Your task to perform on an android device: open app "Facebook Lite" (install if not already installed) Image 0: 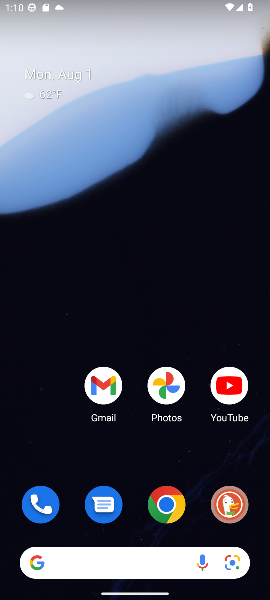
Step 0: drag from (142, 556) to (151, 111)
Your task to perform on an android device: open app "Facebook Lite" (install if not already installed) Image 1: 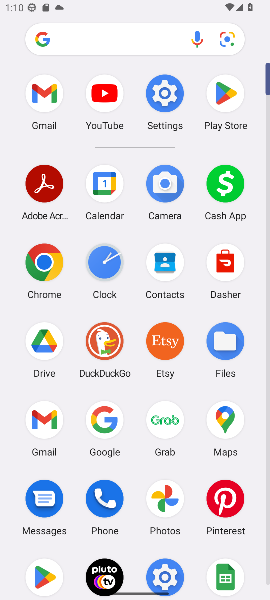
Step 1: drag from (193, 481) to (182, 215)
Your task to perform on an android device: open app "Facebook Lite" (install if not already installed) Image 2: 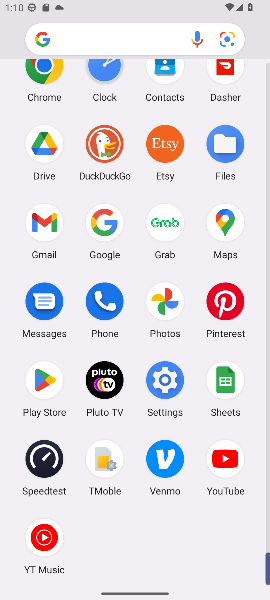
Step 2: click (32, 394)
Your task to perform on an android device: open app "Facebook Lite" (install if not already installed) Image 3: 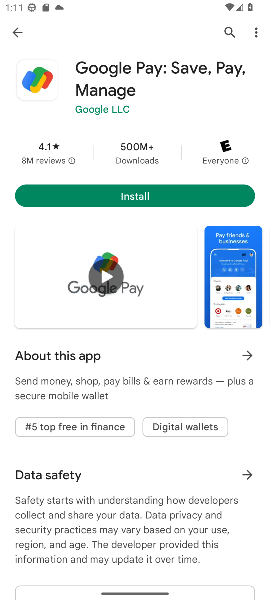
Step 3: click (232, 30)
Your task to perform on an android device: open app "Facebook Lite" (install if not already installed) Image 4: 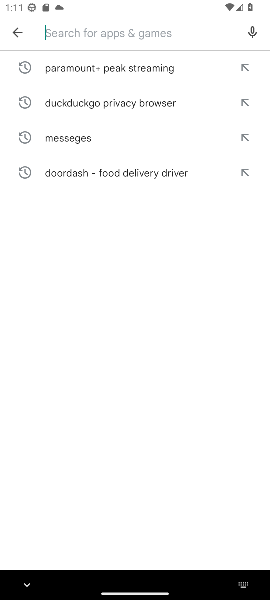
Step 4: type "facebook lite"
Your task to perform on an android device: open app "Facebook Lite" (install if not already installed) Image 5: 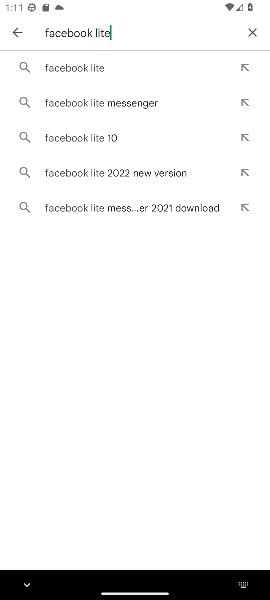
Step 5: click (147, 69)
Your task to perform on an android device: open app "Facebook Lite" (install if not already installed) Image 6: 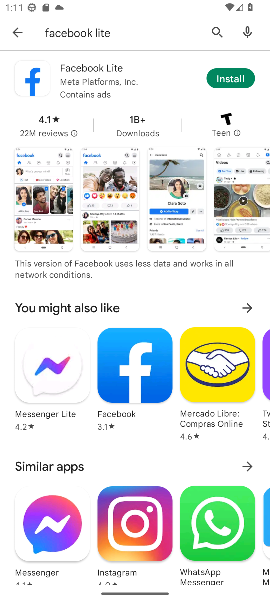
Step 6: click (244, 80)
Your task to perform on an android device: open app "Facebook Lite" (install if not already installed) Image 7: 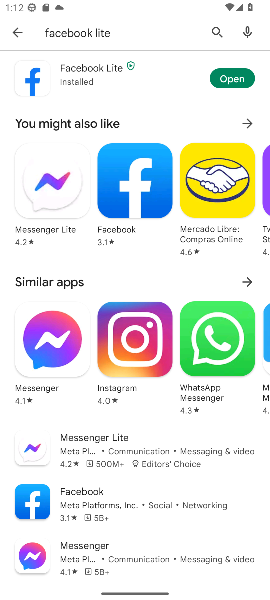
Step 7: click (237, 76)
Your task to perform on an android device: open app "Facebook Lite" (install if not already installed) Image 8: 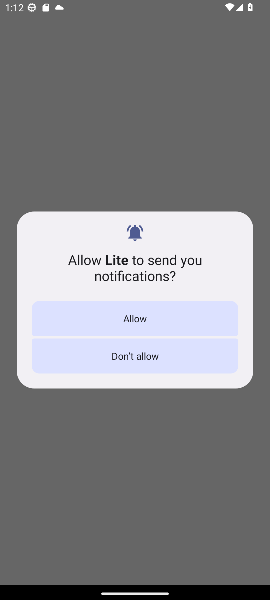
Step 8: task complete